Your task to perform on an android device: Open the calendar and show me this week's events? Image 0: 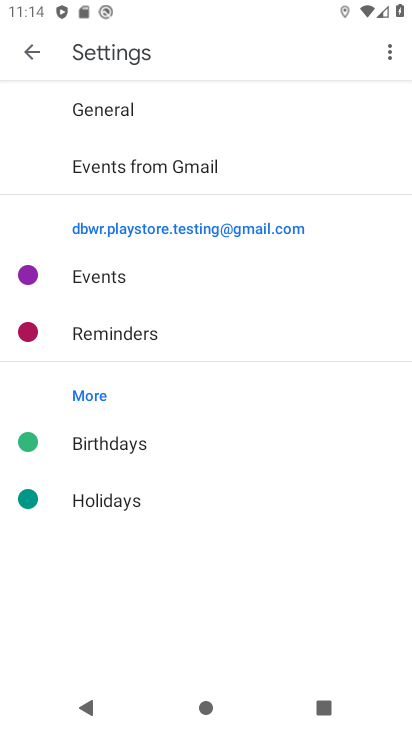
Step 0: press home button
Your task to perform on an android device: Open the calendar and show me this week's events? Image 1: 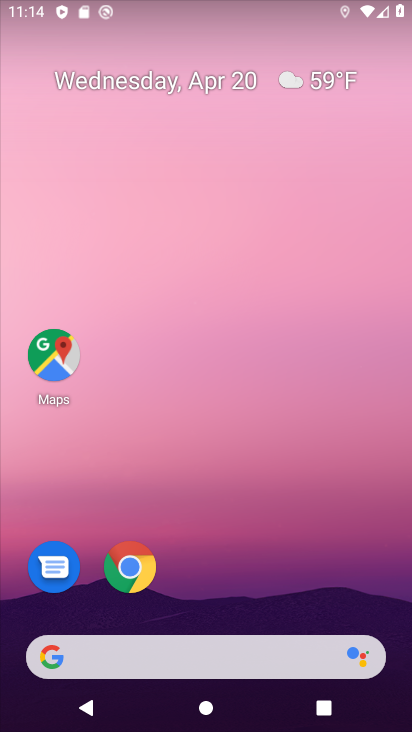
Step 1: drag from (281, 605) to (337, 48)
Your task to perform on an android device: Open the calendar and show me this week's events? Image 2: 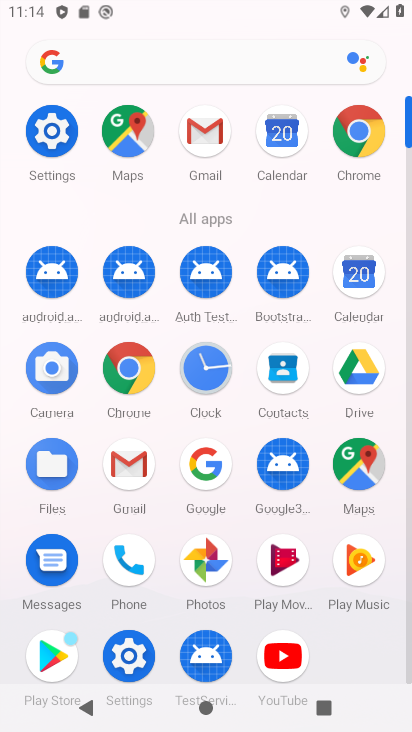
Step 2: click (365, 283)
Your task to perform on an android device: Open the calendar and show me this week's events? Image 3: 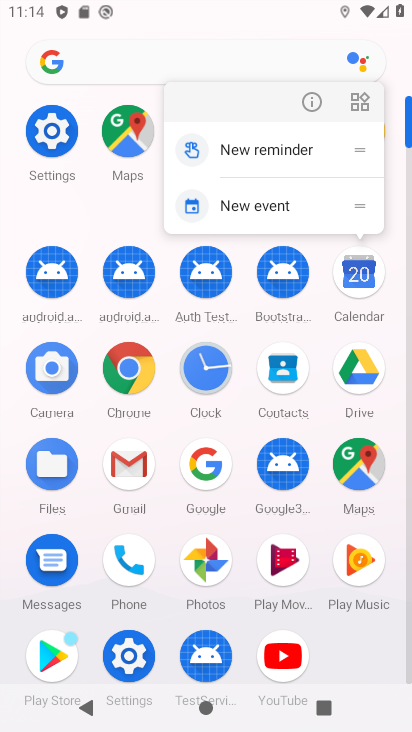
Step 3: click (365, 283)
Your task to perform on an android device: Open the calendar and show me this week's events? Image 4: 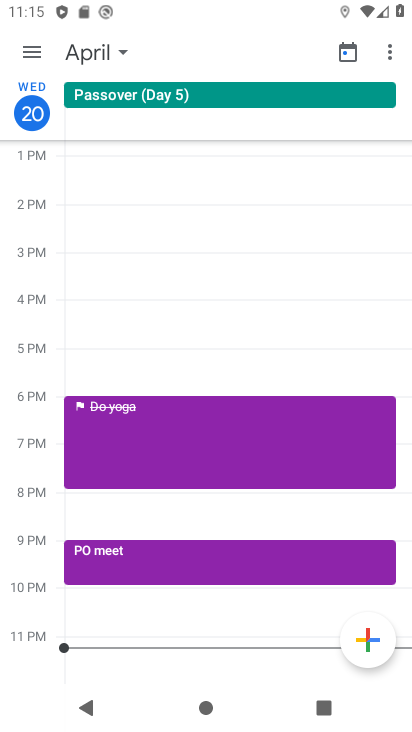
Step 4: click (74, 56)
Your task to perform on an android device: Open the calendar and show me this week's events? Image 5: 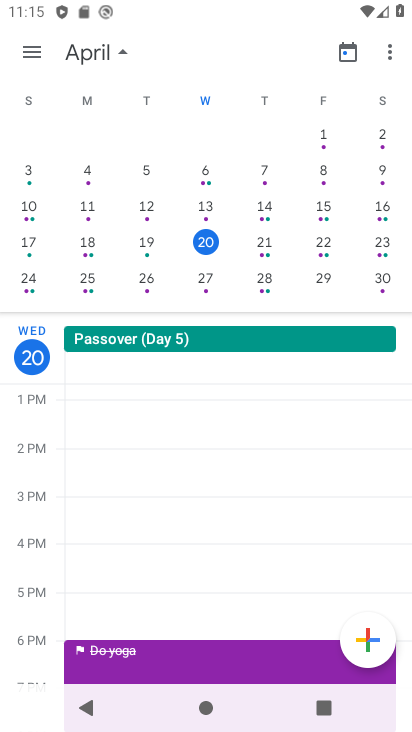
Step 5: click (276, 240)
Your task to perform on an android device: Open the calendar and show me this week's events? Image 6: 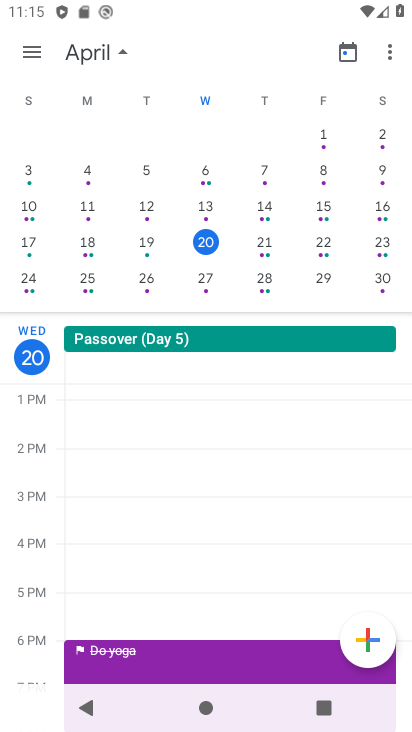
Step 6: click (269, 240)
Your task to perform on an android device: Open the calendar and show me this week's events? Image 7: 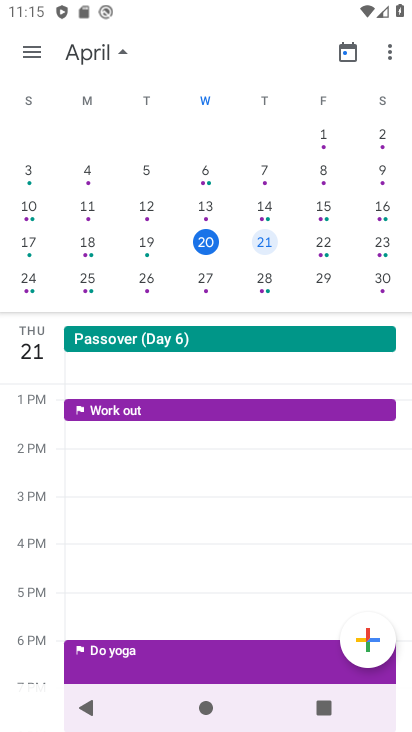
Step 7: click (324, 247)
Your task to perform on an android device: Open the calendar and show me this week's events? Image 8: 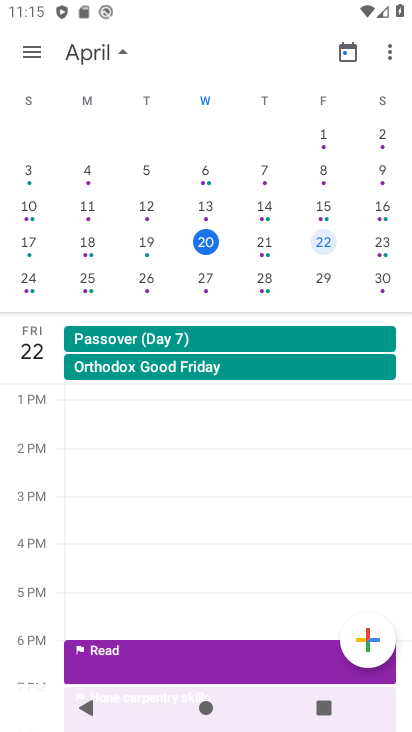
Step 8: click (385, 243)
Your task to perform on an android device: Open the calendar and show me this week's events? Image 9: 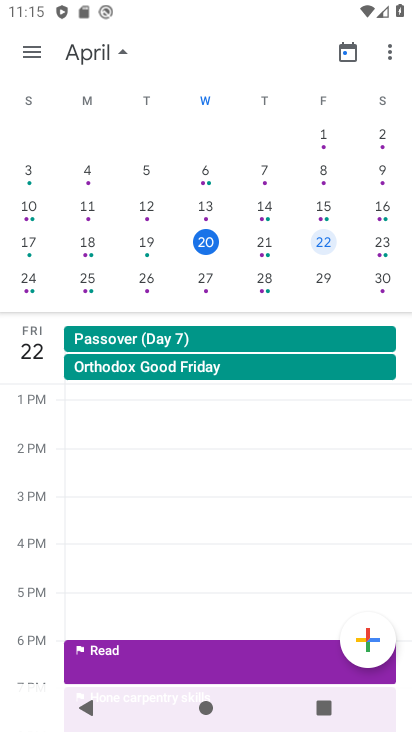
Step 9: click (386, 243)
Your task to perform on an android device: Open the calendar and show me this week's events? Image 10: 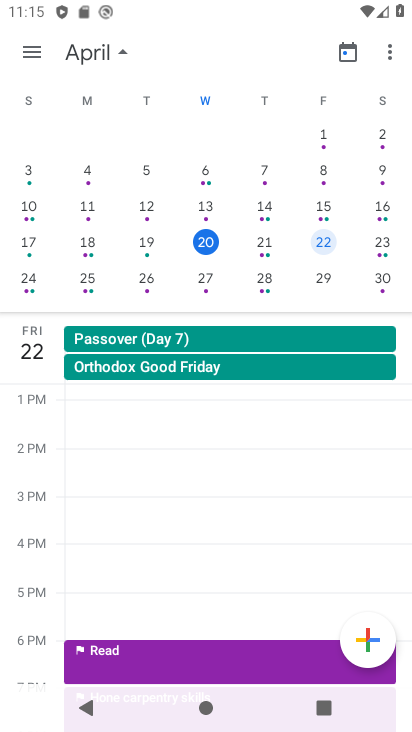
Step 10: click (387, 243)
Your task to perform on an android device: Open the calendar and show me this week's events? Image 11: 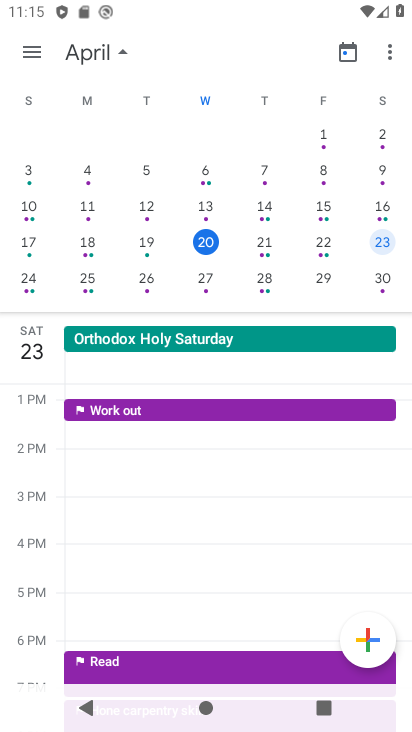
Step 11: task complete